Your task to perform on an android device: Open Chrome and go to settings Image 0: 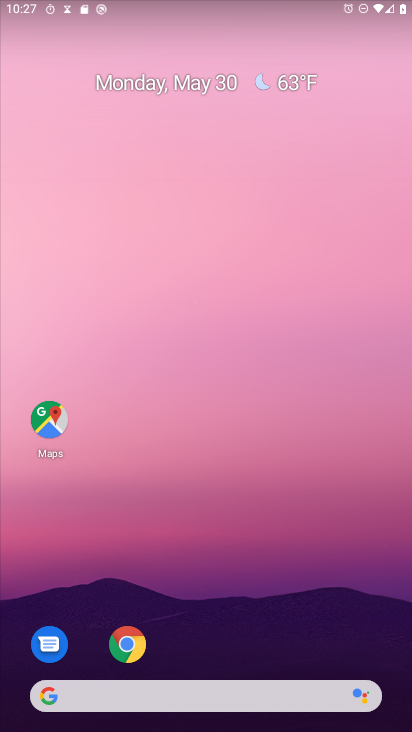
Step 0: click (130, 645)
Your task to perform on an android device: Open Chrome and go to settings Image 1: 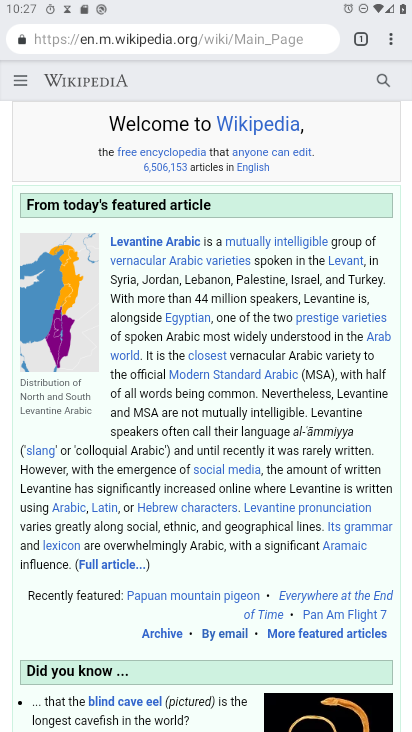
Step 1: click (388, 40)
Your task to perform on an android device: Open Chrome and go to settings Image 2: 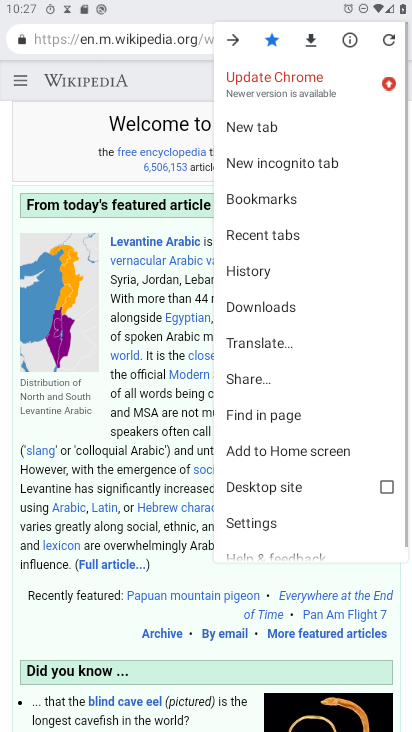
Step 2: click (270, 520)
Your task to perform on an android device: Open Chrome and go to settings Image 3: 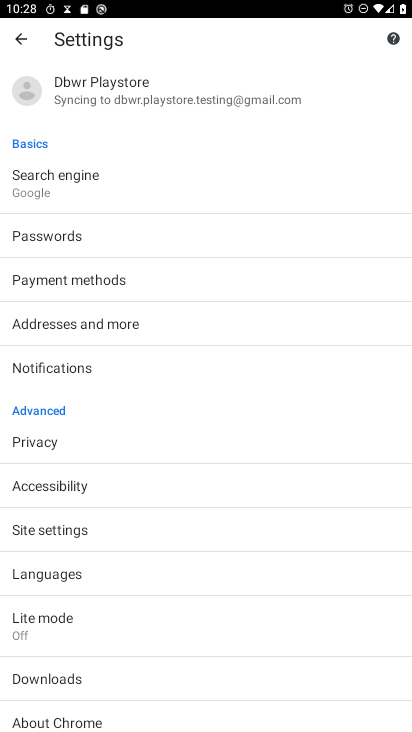
Step 3: task complete